Your task to perform on an android device: check android version Image 0: 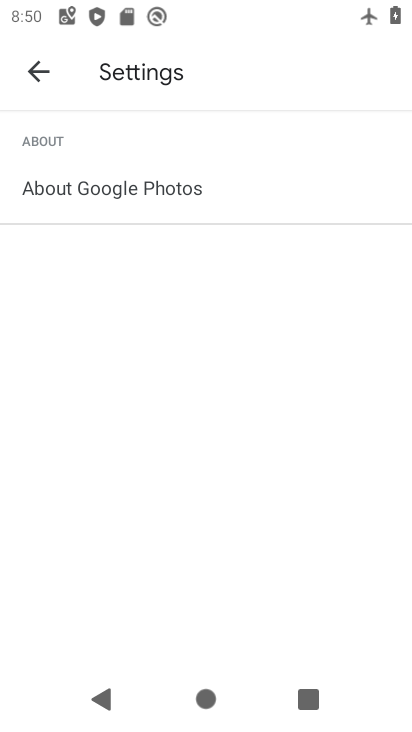
Step 0: press home button
Your task to perform on an android device: check android version Image 1: 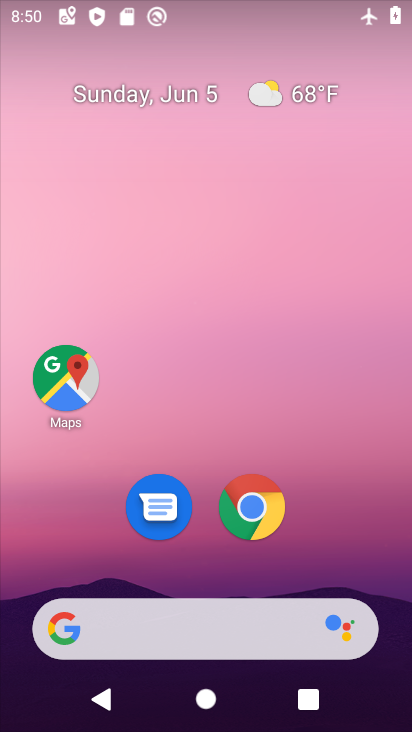
Step 1: drag from (210, 574) to (307, 14)
Your task to perform on an android device: check android version Image 2: 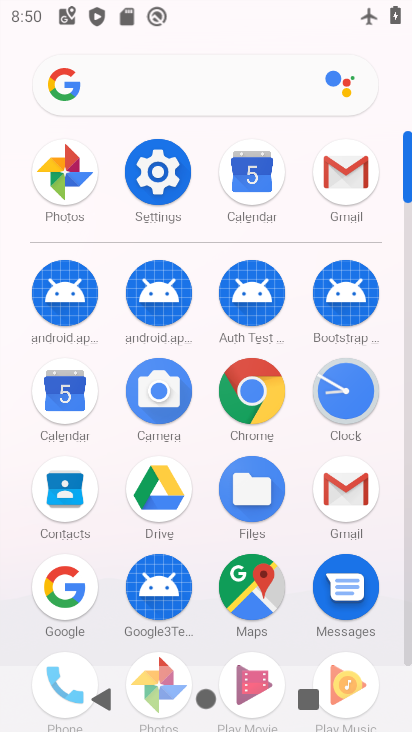
Step 2: click (159, 203)
Your task to perform on an android device: check android version Image 3: 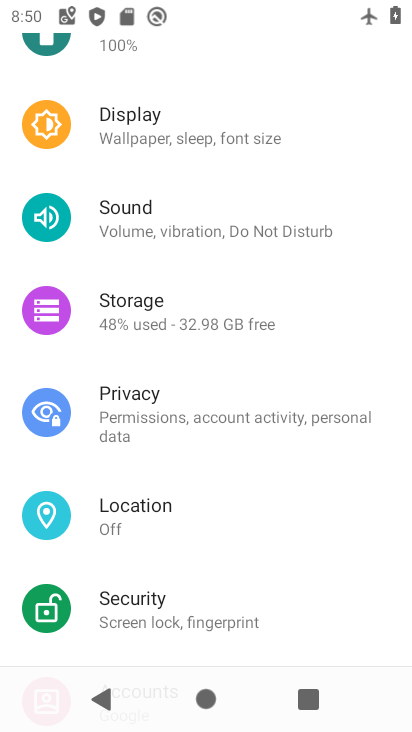
Step 3: drag from (258, 588) to (307, 85)
Your task to perform on an android device: check android version Image 4: 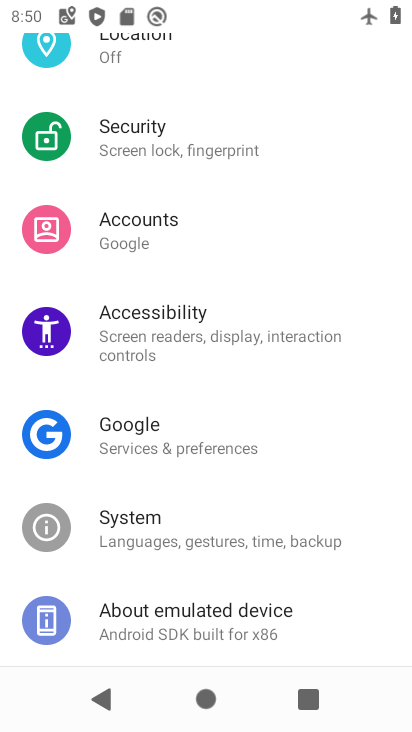
Step 4: drag from (205, 593) to (224, 252)
Your task to perform on an android device: check android version Image 5: 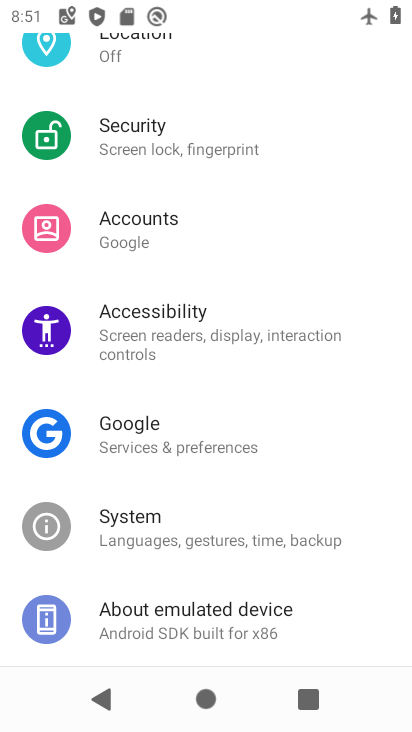
Step 5: click (205, 616)
Your task to perform on an android device: check android version Image 6: 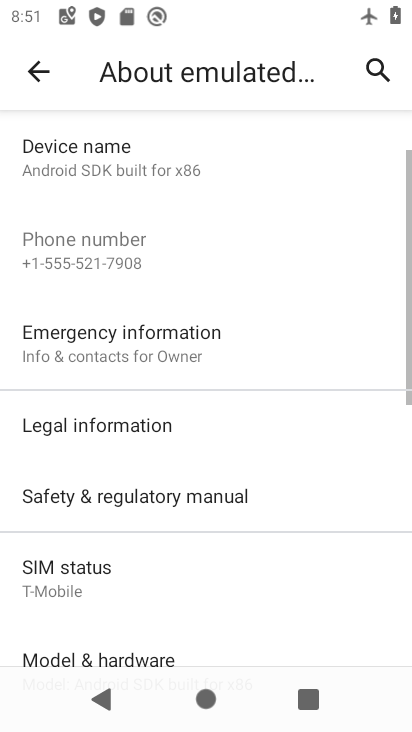
Step 6: drag from (166, 577) to (181, 436)
Your task to perform on an android device: check android version Image 7: 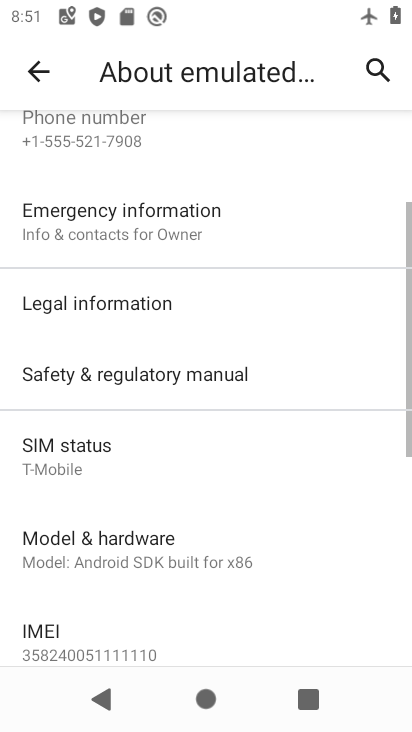
Step 7: drag from (148, 595) to (243, 63)
Your task to perform on an android device: check android version Image 8: 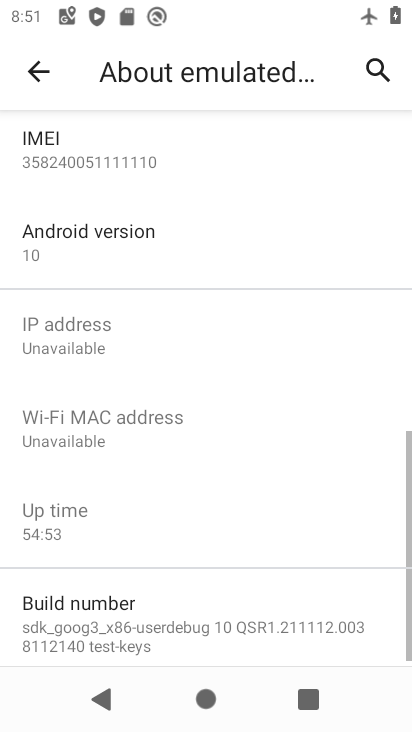
Step 8: click (133, 245)
Your task to perform on an android device: check android version Image 9: 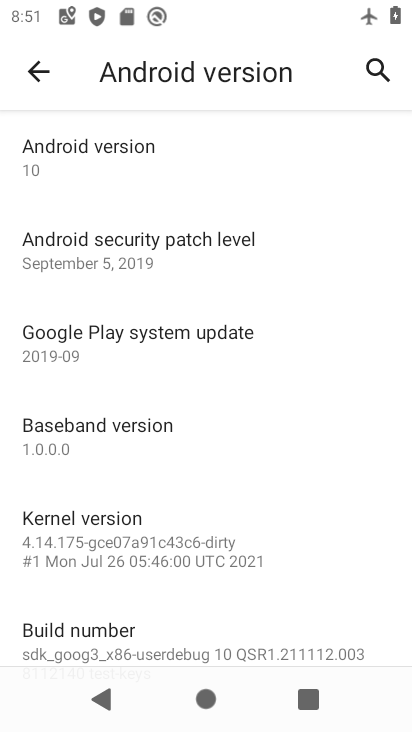
Step 9: task complete